Your task to perform on an android device: Open the Play Movies app and select the watchlist tab. Image 0: 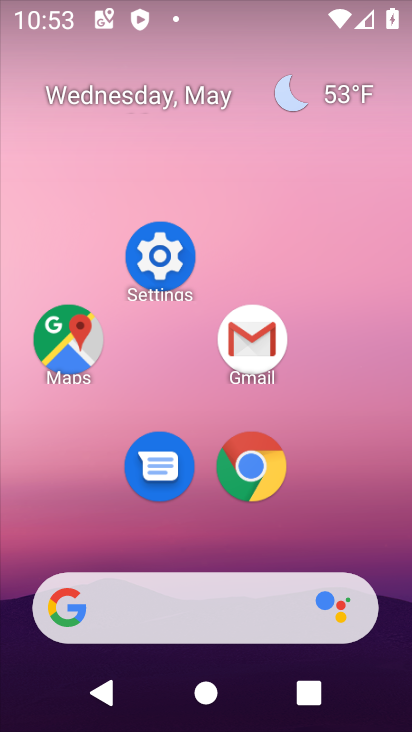
Step 0: drag from (203, 508) to (257, 164)
Your task to perform on an android device: Open the Play Movies app and select the watchlist tab. Image 1: 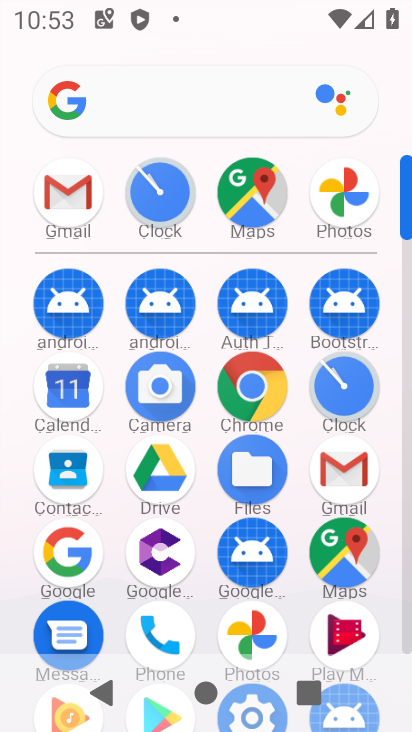
Step 1: click (349, 616)
Your task to perform on an android device: Open the Play Movies app and select the watchlist tab. Image 2: 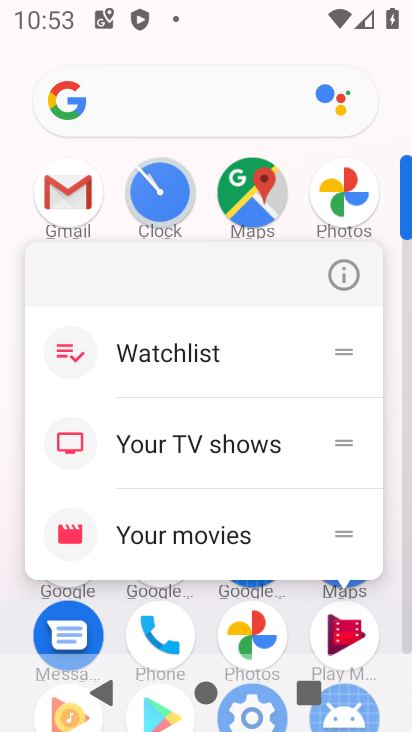
Step 2: click (341, 271)
Your task to perform on an android device: Open the Play Movies app and select the watchlist tab. Image 3: 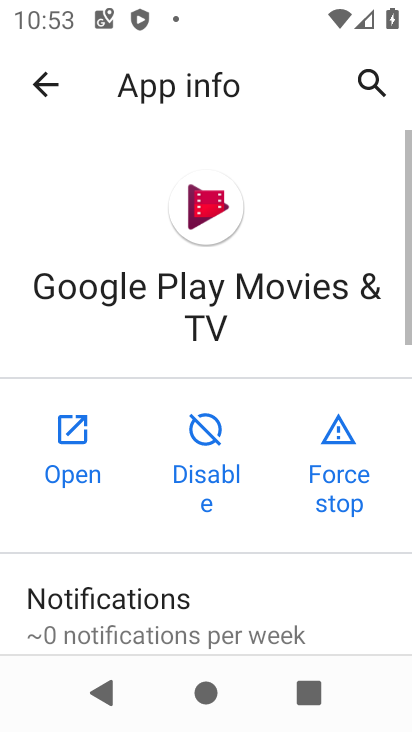
Step 3: click (66, 423)
Your task to perform on an android device: Open the Play Movies app and select the watchlist tab. Image 4: 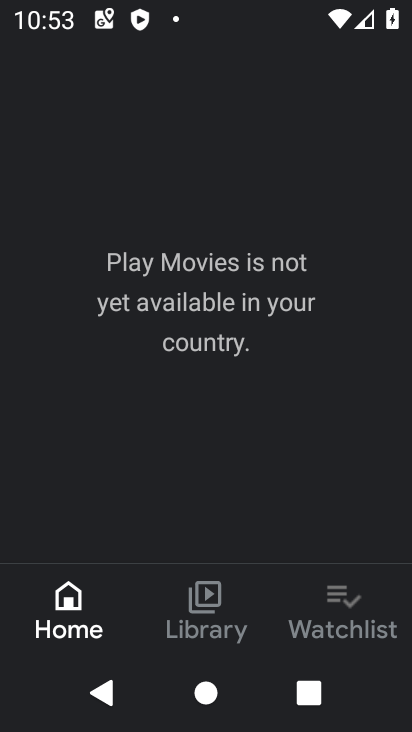
Step 4: click (329, 620)
Your task to perform on an android device: Open the Play Movies app and select the watchlist tab. Image 5: 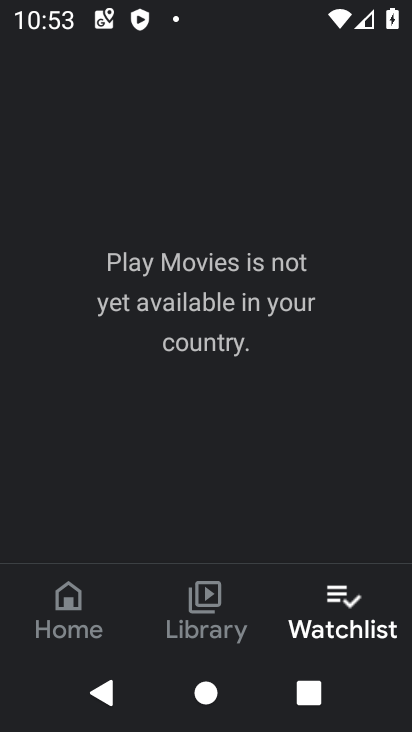
Step 5: task complete